Your task to perform on an android device: toggle airplane mode Image 0: 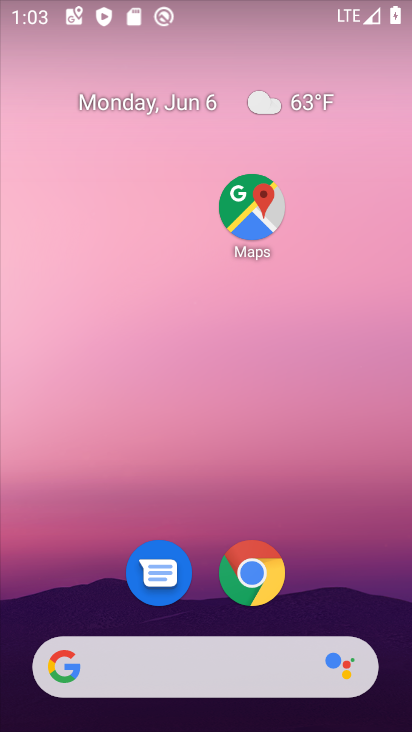
Step 0: drag from (183, 535) to (155, 0)
Your task to perform on an android device: toggle airplane mode Image 1: 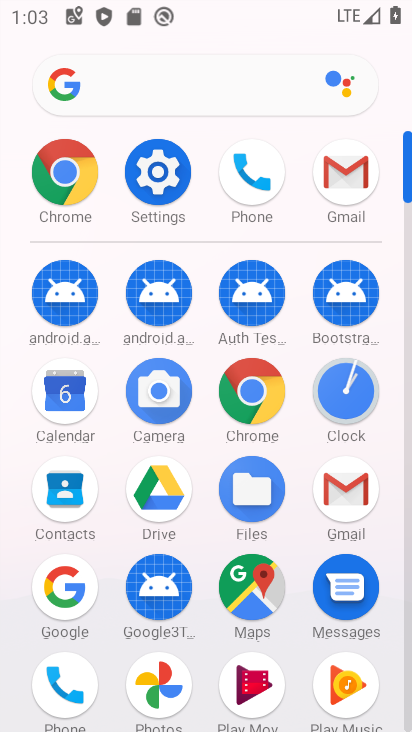
Step 1: drag from (208, 224) to (237, 0)
Your task to perform on an android device: toggle airplane mode Image 2: 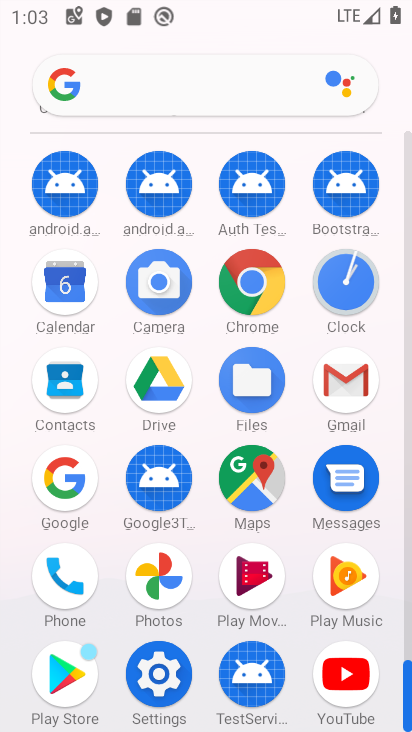
Step 2: click (154, 671)
Your task to perform on an android device: toggle airplane mode Image 3: 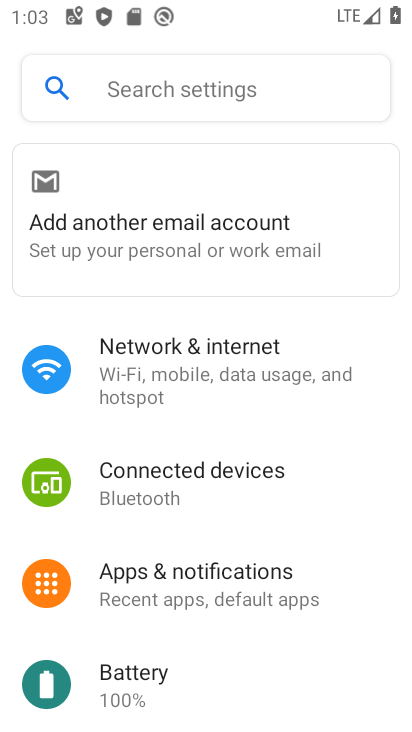
Step 3: drag from (215, 444) to (153, 188)
Your task to perform on an android device: toggle airplane mode Image 4: 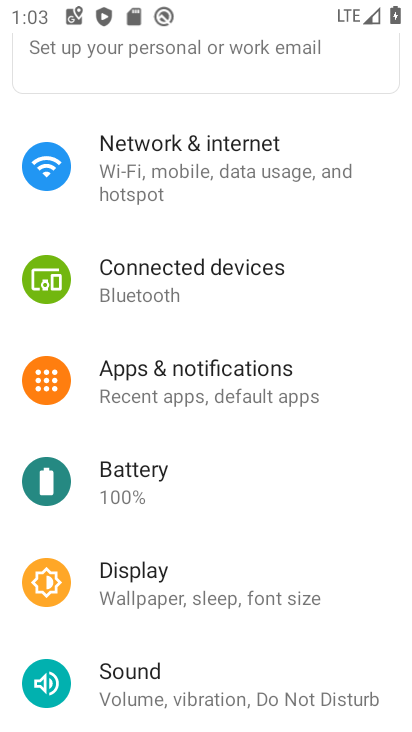
Step 4: click (191, 168)
Your task to perform on an android device: toggle airplane mode Image 5: 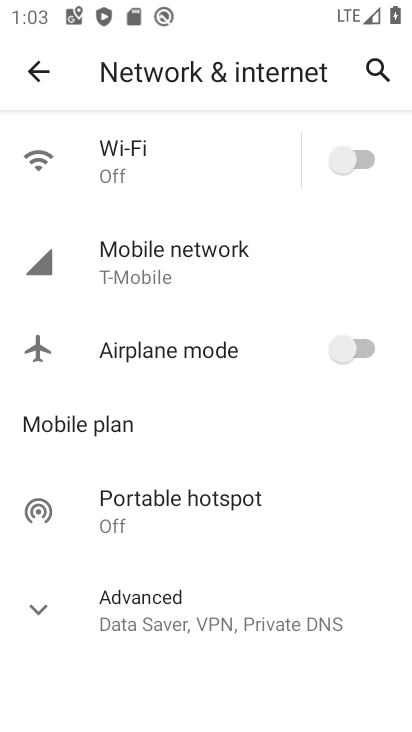
Step 5: click (330, 340)
Your task to perform on an android device: toggle airplane mode Image 6: 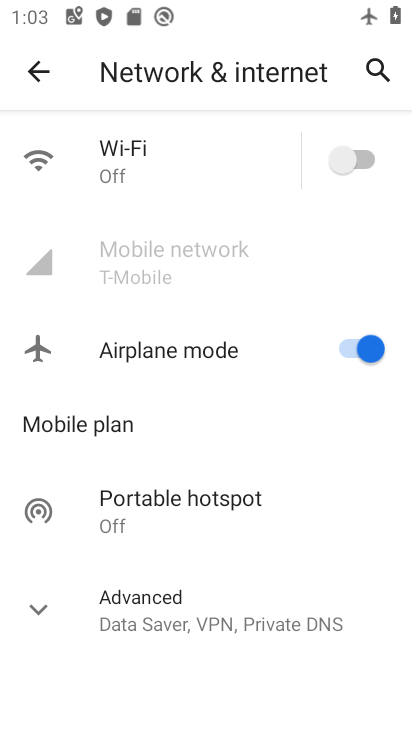
Step 6: task complete